Your task to perform on an android device: Open display settings Image 0: 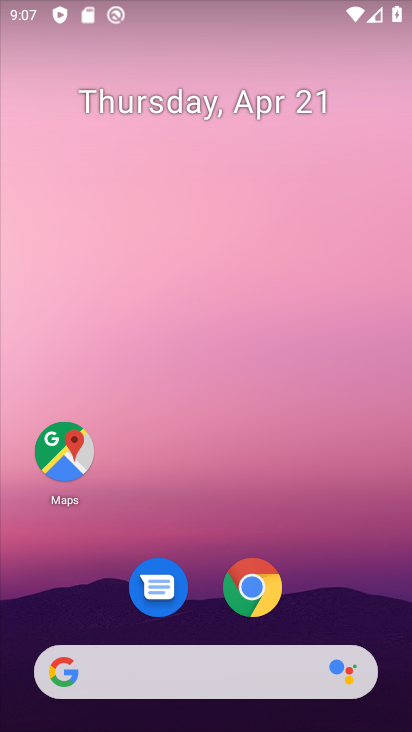
Step 0: drag from (173, 604) to (242, 48)
Your task to perform on an android device: Open display settings Image 1: 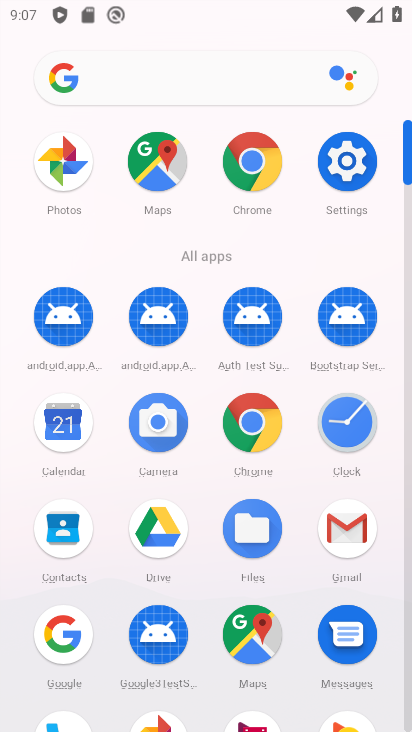
Step 1: click (343, 160)
Your task to perform on an android device: Open display settings Image 2: 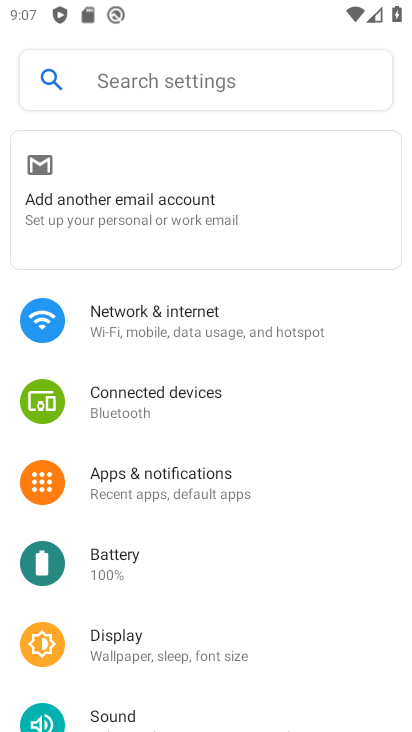
Step 2: click (155, 647)
Your task to perform on an android device: Open display settings Image 3: 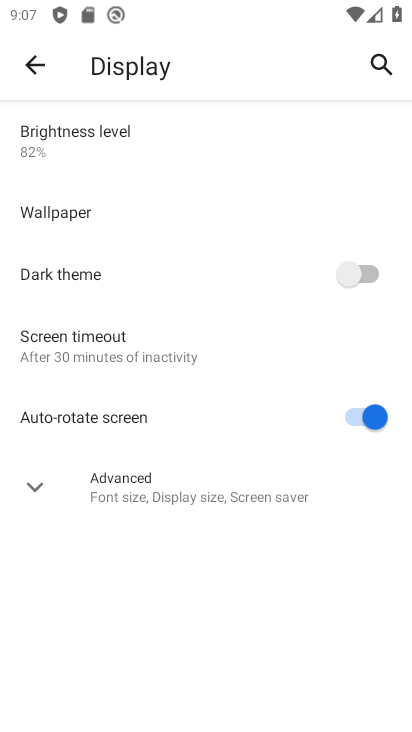
Step 3: task complete